Your task to perform on an android device: Open Yahoo.com Image 0: 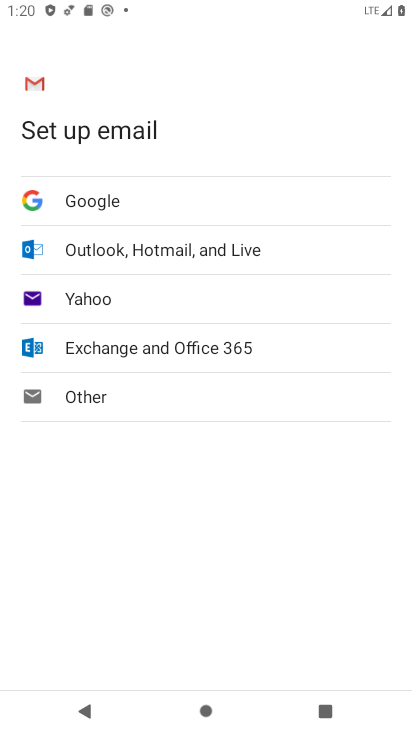
Step 0: press back button
Your task to perform on an android device: Open Yahoo.com Image 1: 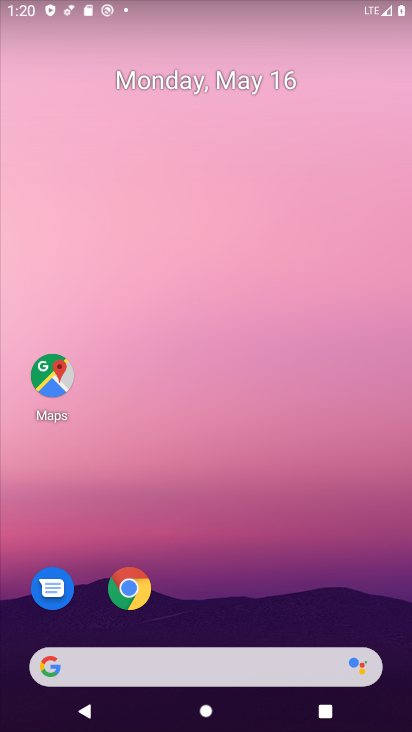
Step 1: click (127, 590)
Your task to perform on an android device: Open Yahoo.com Image 2: 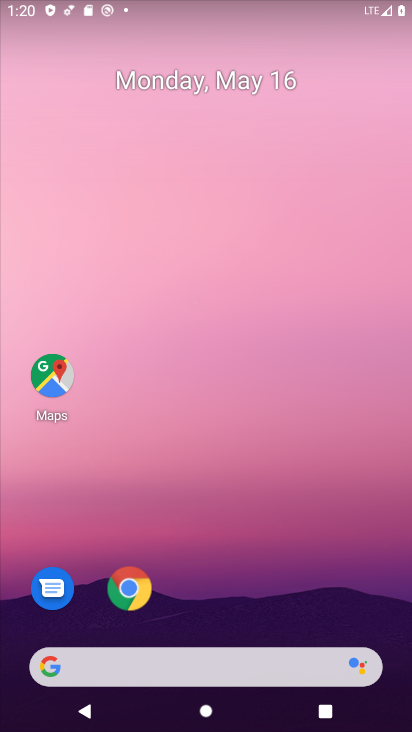
Step 2: click (127, 590)
Your task to perform on an android device: Open Yahoo.com Image 3: 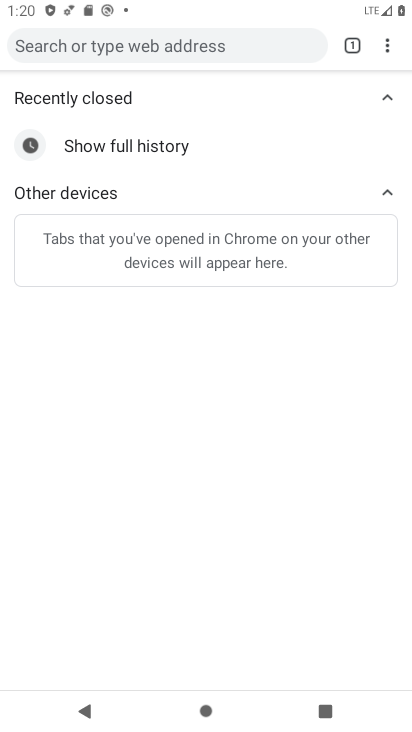
Step 3: click (284, 46)
Your task to perform on an android device: Open Yahoo.com Image 4: 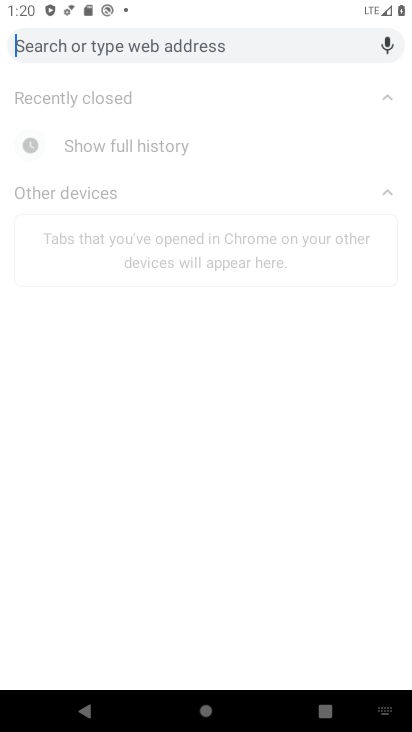
Step 4: type "Yahoo.com"
Your task to perform on an android device: Open Yahoo.com Image 5: 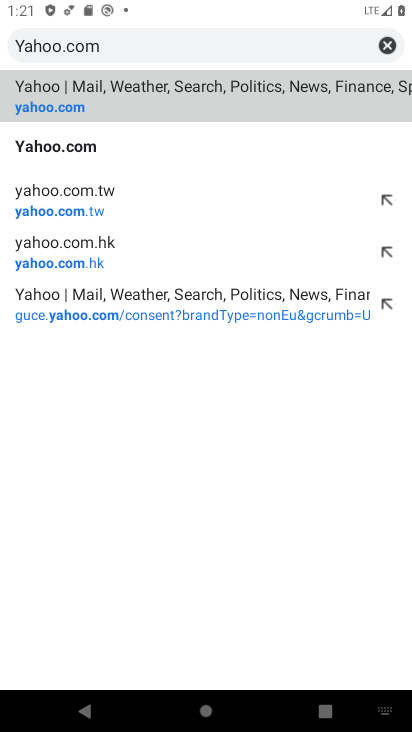
Step 5: click (47, 144)
Your task to perform on an android device: Open Yahoo.com Image 6: 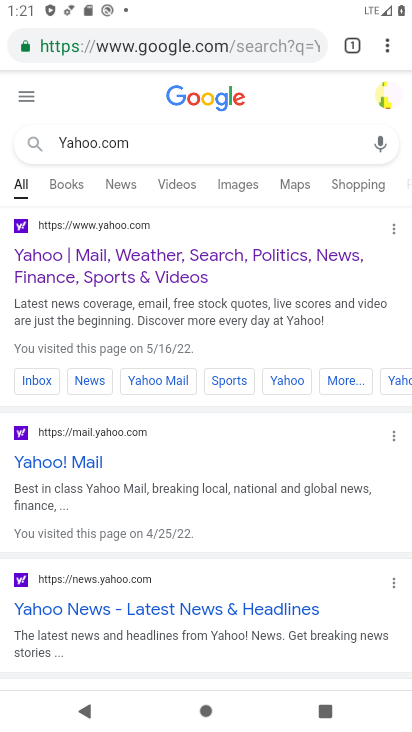
Step 6: click (199, 260)
Your task to perform on an android device: Open Yahoo.com Image 7: 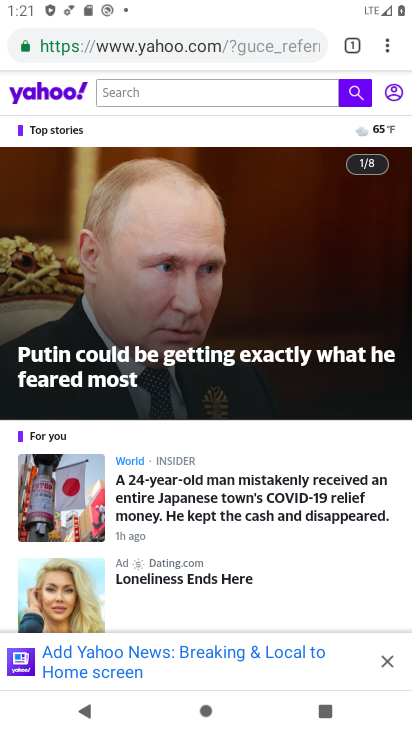
Step 7: task complete